Your task to perform on an android device: set the stopwatch Image 0: 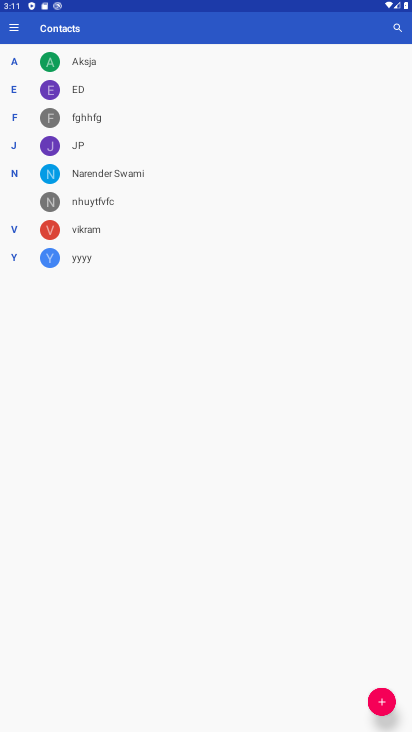
Step 0: press home button
Your task to perform on an android device: set the stopwatch Image 1: 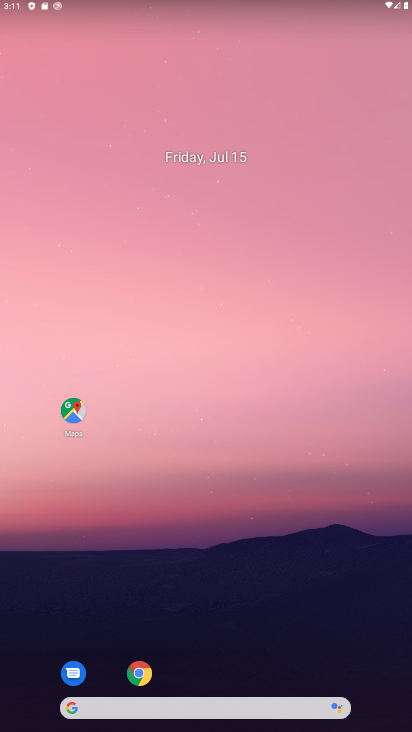
Step 1: drag from (220, 697) to (316, 320)
Your task to perform on an android device: set the stopwatch Image 2: 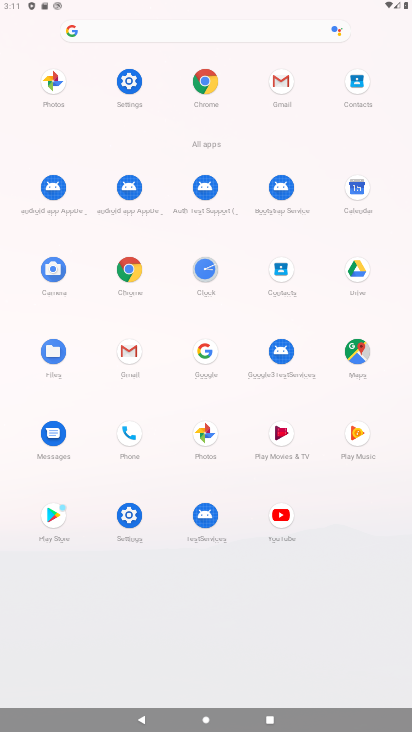
Step 2: click (198, 273)
Your task to perform on an android device: set the stopwatch Image 3: 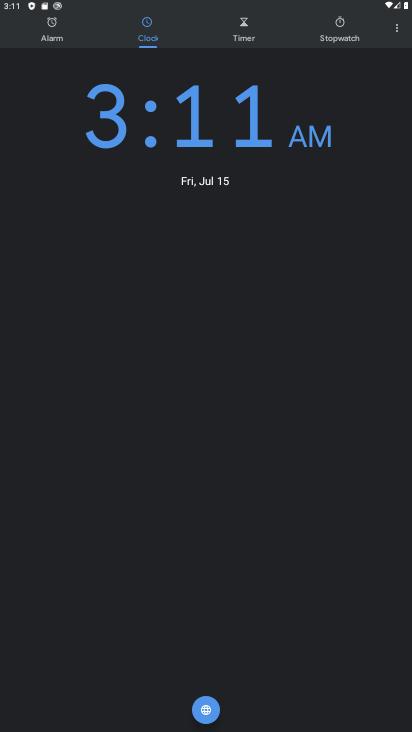
Step 3: click (334, 31)
Your task to perform on an android device: set the stopwatch Image 4: 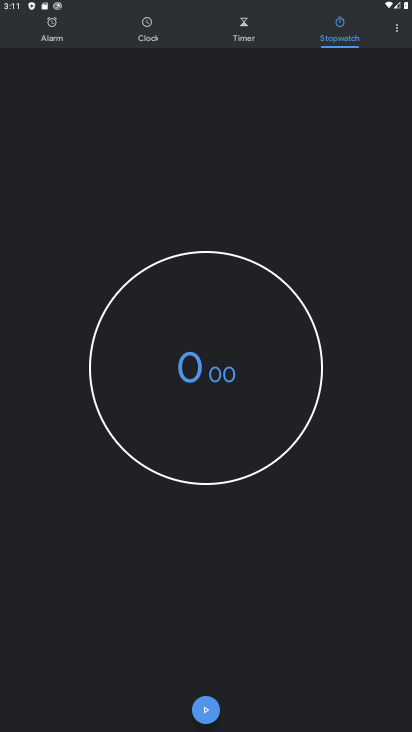
Step 4: click (204, 704)
Your task to perform on an android device: set the stopwatch Image 5: 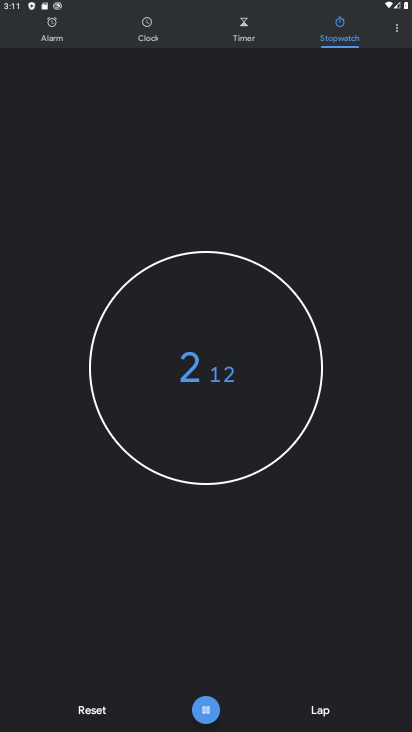
Step 5: task complete